Your task to perform on an android device: Search for seafood restaurants on Google Maps Image 0: 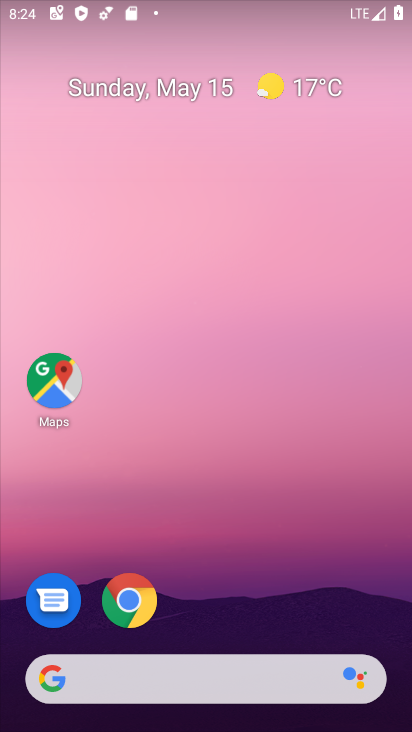
Step 0: click (52, 384)
Your task to perform on an android device: Search for seafood restaurants on Google Maps Image 1: 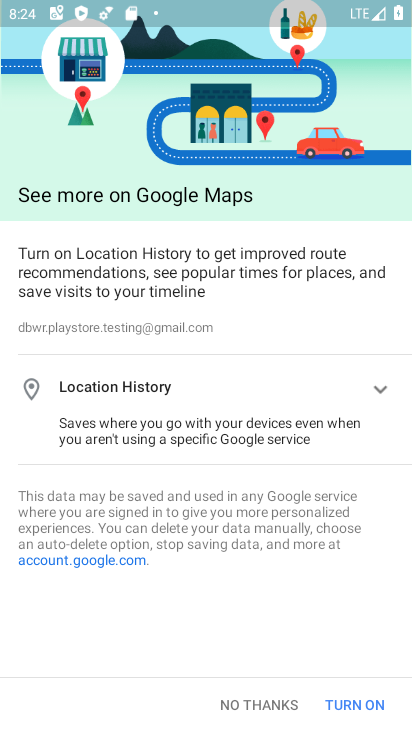
Step 1: click (262, 702)
Your task to perform on an android device: Search for seafood restaurants on Google Maps Image 2: 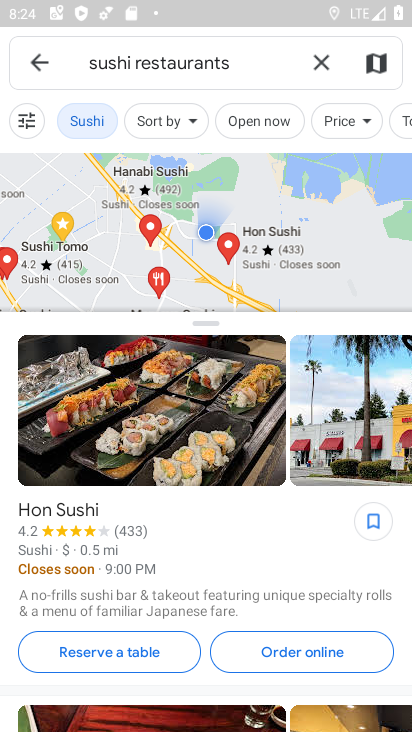
Step 2: click (317, 63)
Your task to perform on an android device: Search for seafood restaurants on Google Maps Image 3: 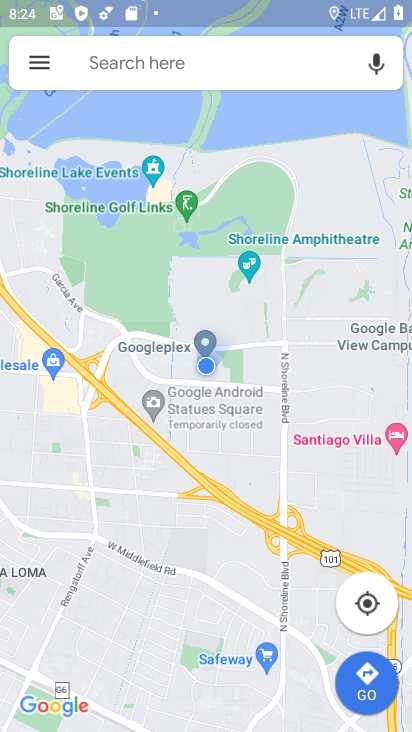
Step 3: click (196, 67)
Your task to perform on an android device: Search for seafood restaurants on Google Maps Image 4: 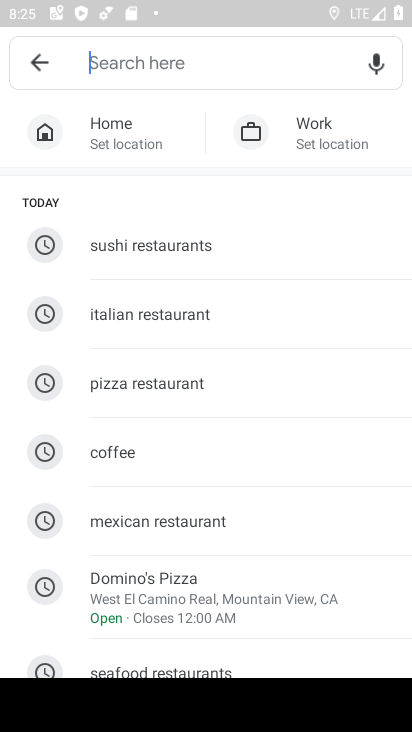
Step 4: type "seafood restaurants"
Your task to perform on an android device: Search for seafood restaurants on Google Maps Image 5: 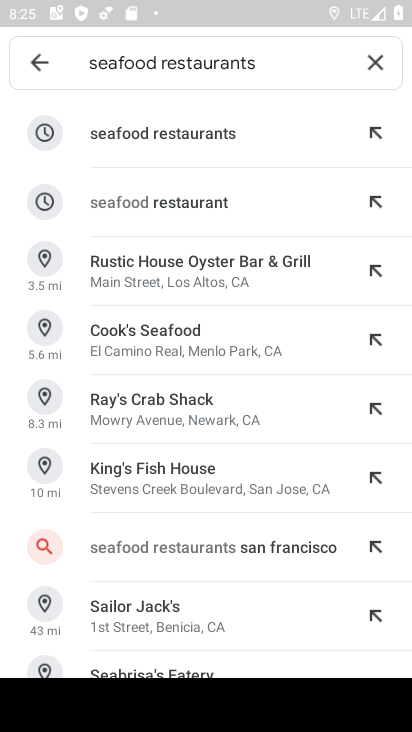
Step 5: click (171, 139)
Your task to perform on an android device: Search for seafood restaurants on Google Maps Image 6: 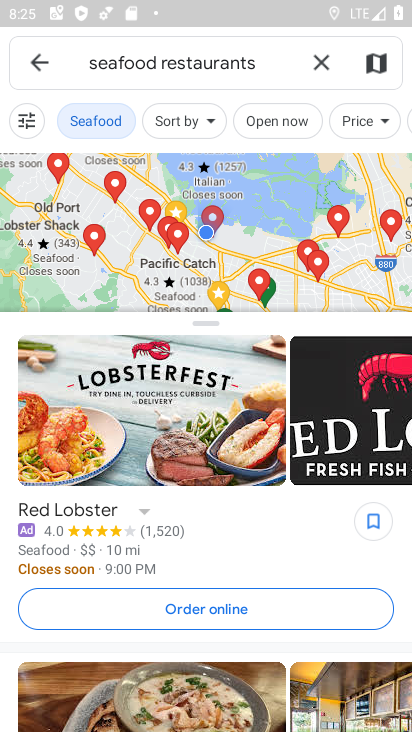
Step 6: task complete